Your task to perform on an android device: Go to battery settings Image 0: 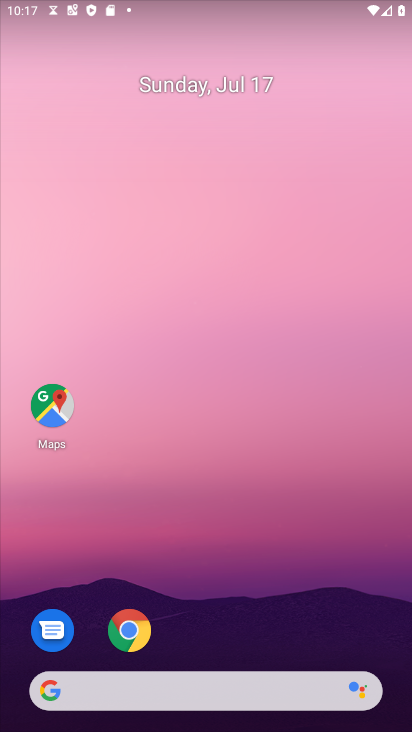
Step 0: drag from (174, 665) to (281, 1)
Your task to perform on an android device: Go to battery settings Image 1: 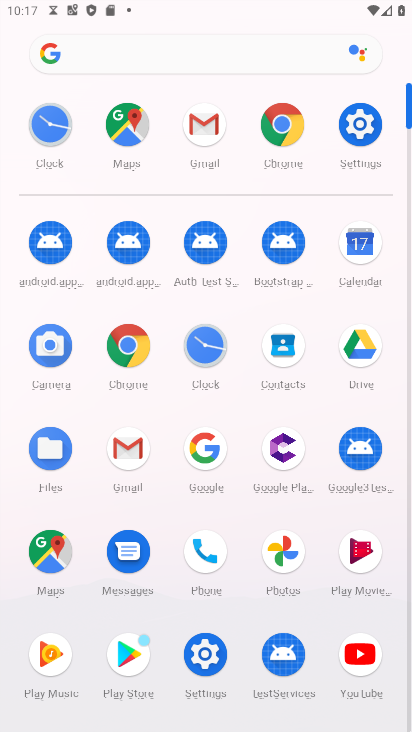
Step 1: click (363, 138)
Your task to perform on an android device: Go to battery settings Image 2: 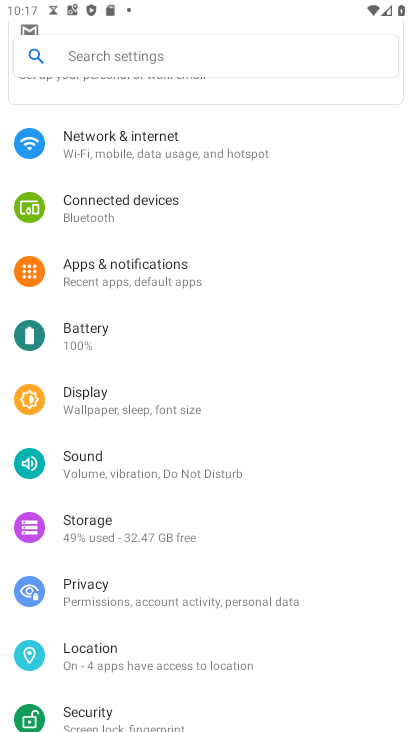
Step 2: drag from (148, 669) to (154, 406)
Your task to perform on an android device: Go to battery settings Image 3: 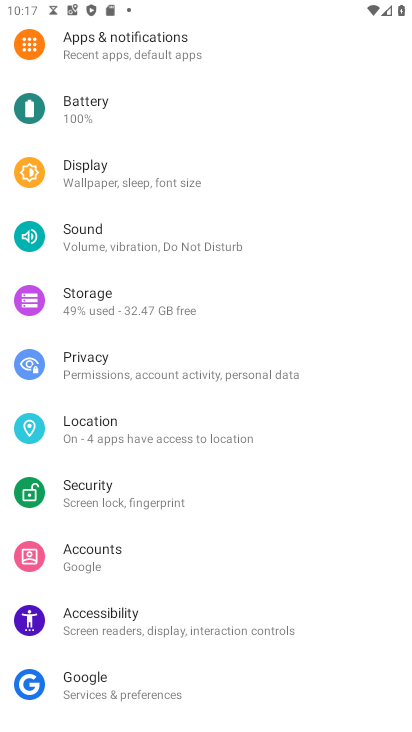
Step 3: click (97, 110)
Your task to perform on an android device: Go to battery settings Image 4: 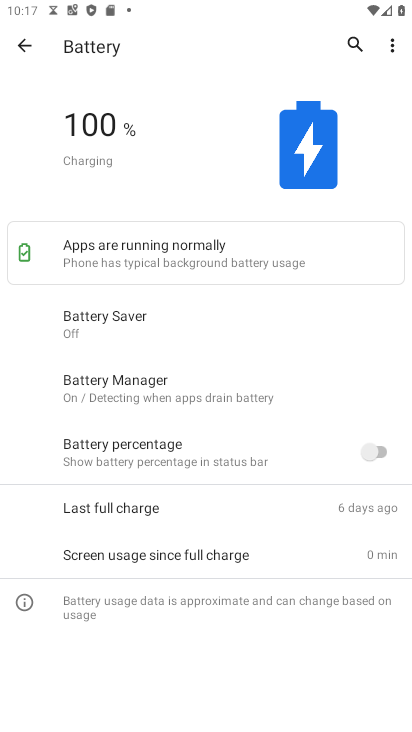
Step 4: task complete